Your task to perform on an android device: Open CNN.com Image 0: 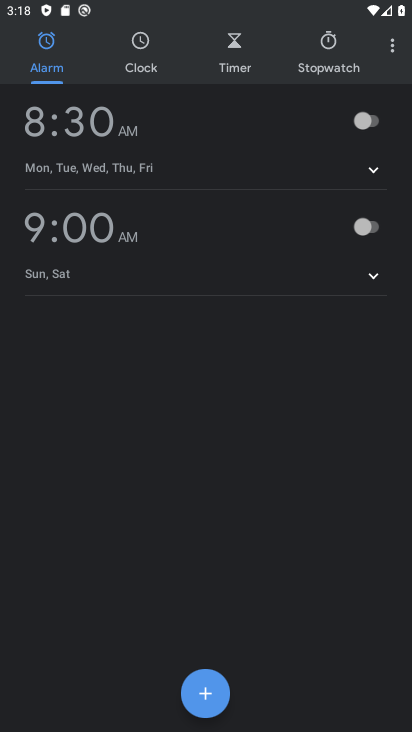
Step 0: press home button
Your task to perform on an android device: Open CNN.com Image 1: 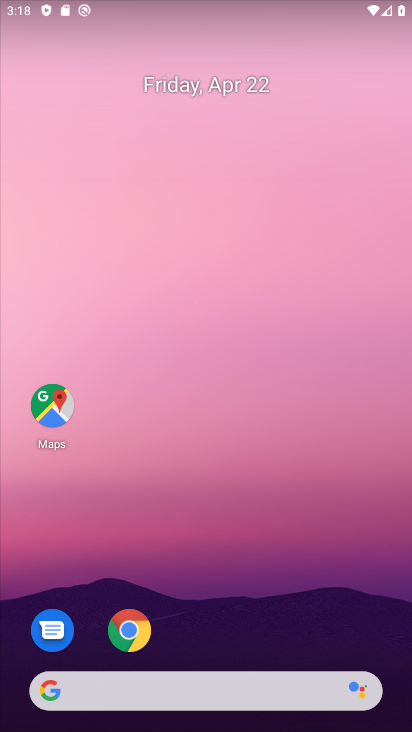
Step 1: click (137, 632)
Your task to perform on an android device: Open CNN.com Image 2: 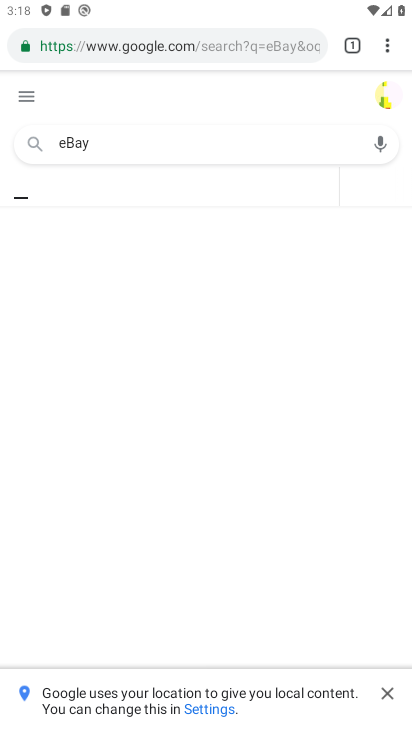
Step 2: click (169, 43)
Your task to perform on an android device: Open CNN.com Image 3: 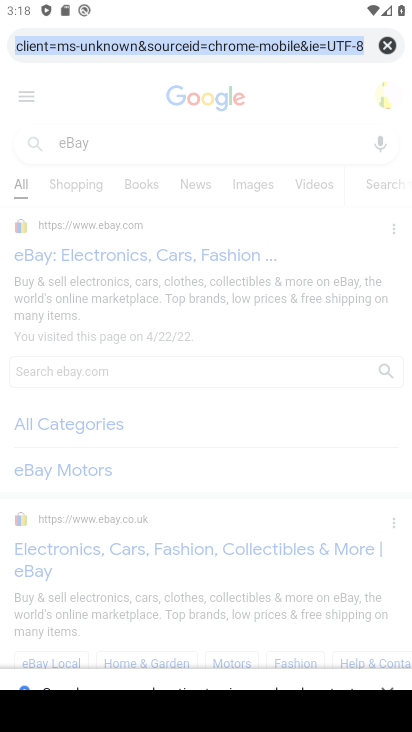
Step 3: type "CNN.com"
Your task to perform on an android device: Open CNN.com Image 4: 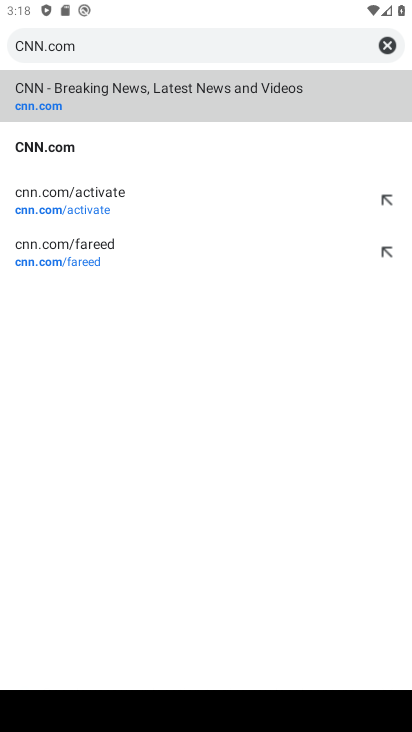
Step 4: click (116, 92)
Your task to perform on an android device: Open CNN.com Image 5: 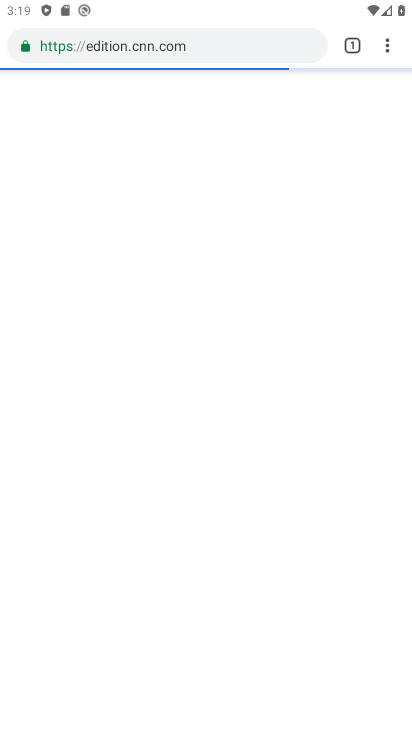
Step 5: task complete